Your task to perform on an android device: turn off notifications in google photos Image 0: 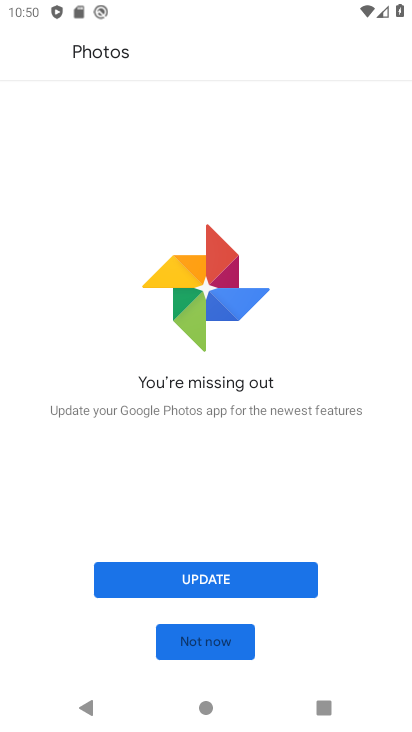
Step 0: click (221, 645)
Your task to perform on an android device: turn off notifications in google photos Image 1: 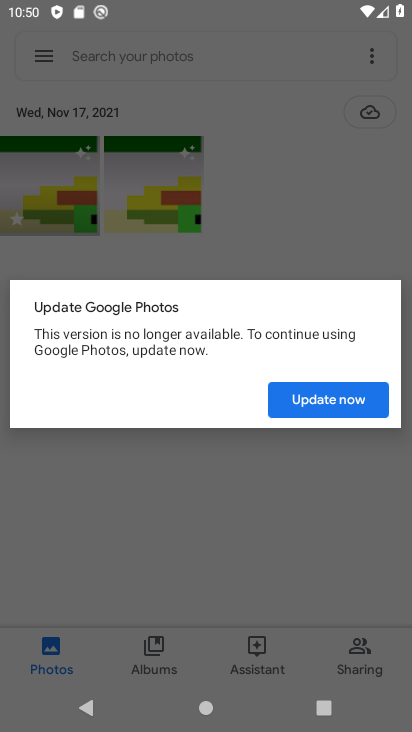
Step 1: click (305, 403)
Your task to perform on an android device: turn off notifications in google photos Image 2: 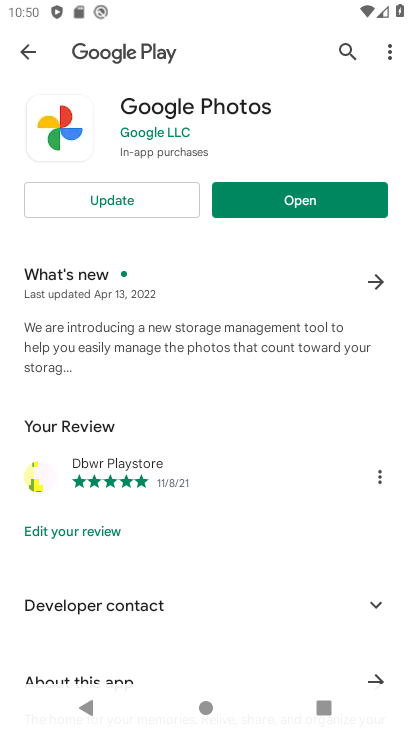
Step 2: click (279, 200)
Your task to perform on an android device: turn off notifications in google photos Image 3: 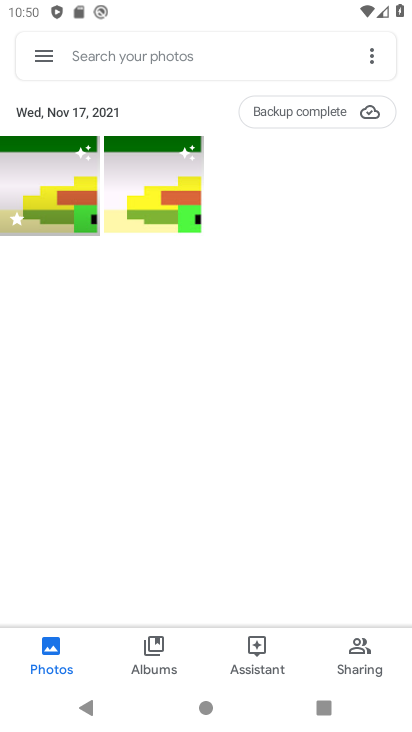
Step 3: click (40, 59)
Your task to perform on an android device: turn off notifications in google photos Image 4: 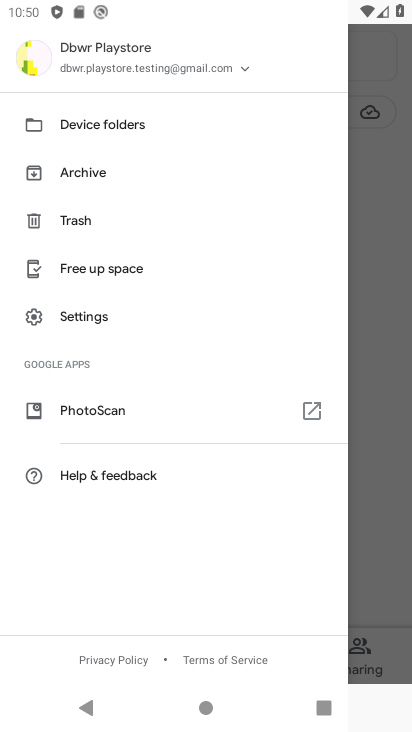
Step 4: click (89, 319)
Your task to perform on an android device: turn off notifications in google photos Image 5: 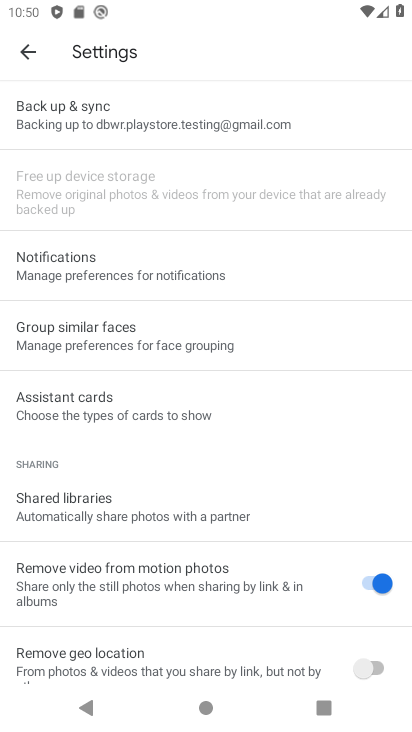
Step 5: click (121, 267)
Your task to perform on an android device: turn off notifications in google photos Image 6: 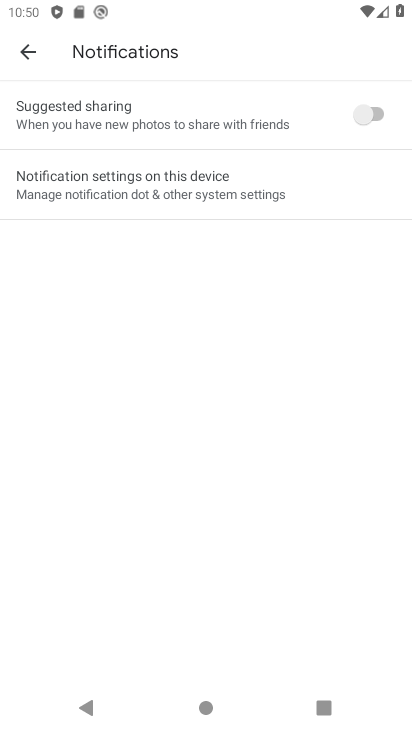
Step 6: click (198, 197)
Your task to perform on an android device: turn off notifications in google photos Image 7: 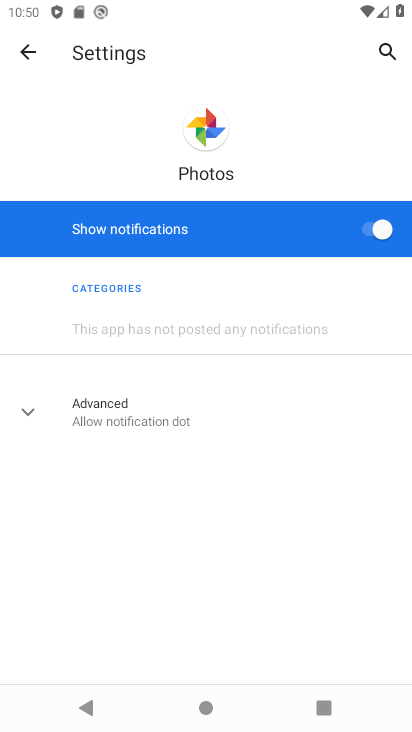
Step 7: click (363, 233)
Your task to perform on an android device: turn off notifications in google photos Image 8: 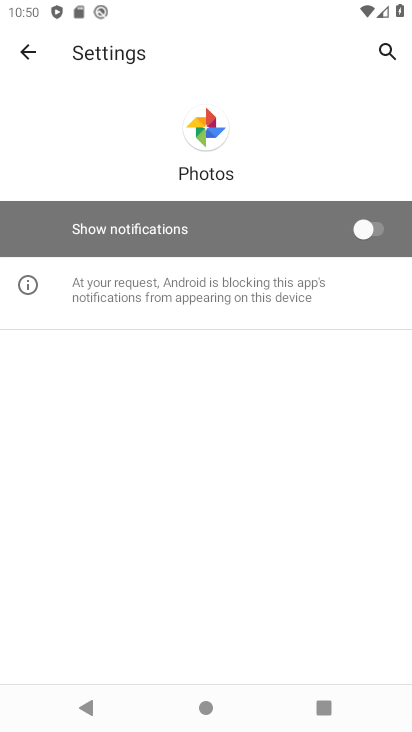
Step 8: task complete